Your task to perform on an android device: Show the shopping cart on newegg.com. Image 0: 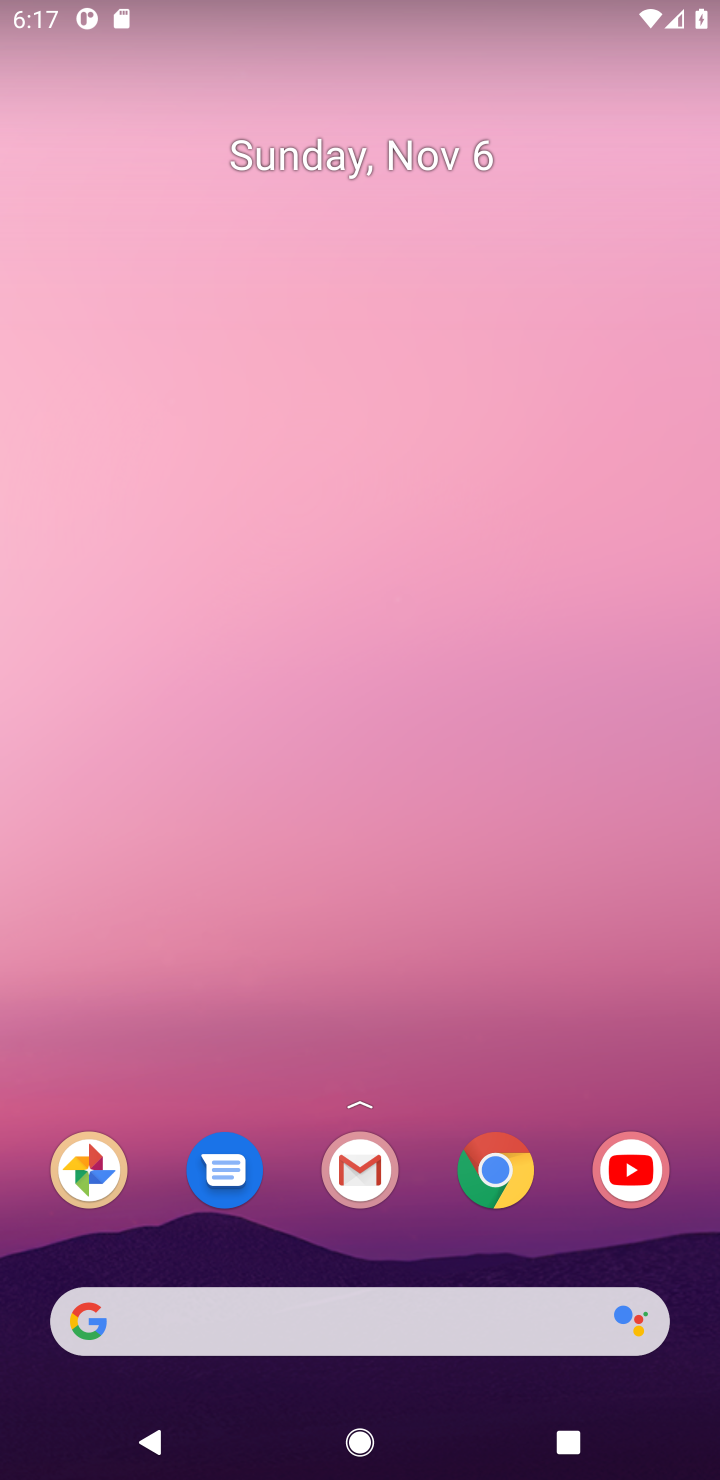
Step 0: click (488, 1193)
Your task to perform on an android device: Show the shopping cart on newegg.com. Image 1: 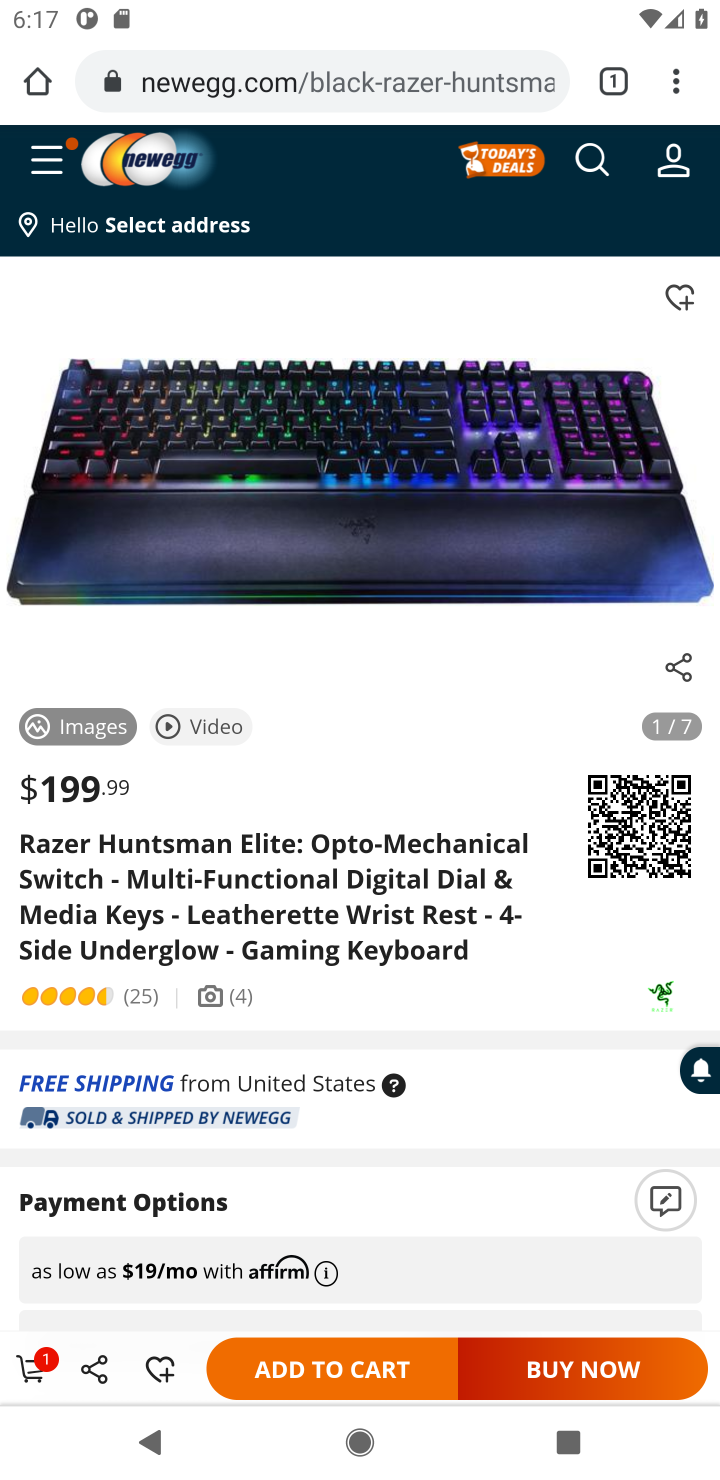
Step 1: click (35, 1367)
Your task to perform on an android device: Show the shopping cart on newegg.com. Image 2: 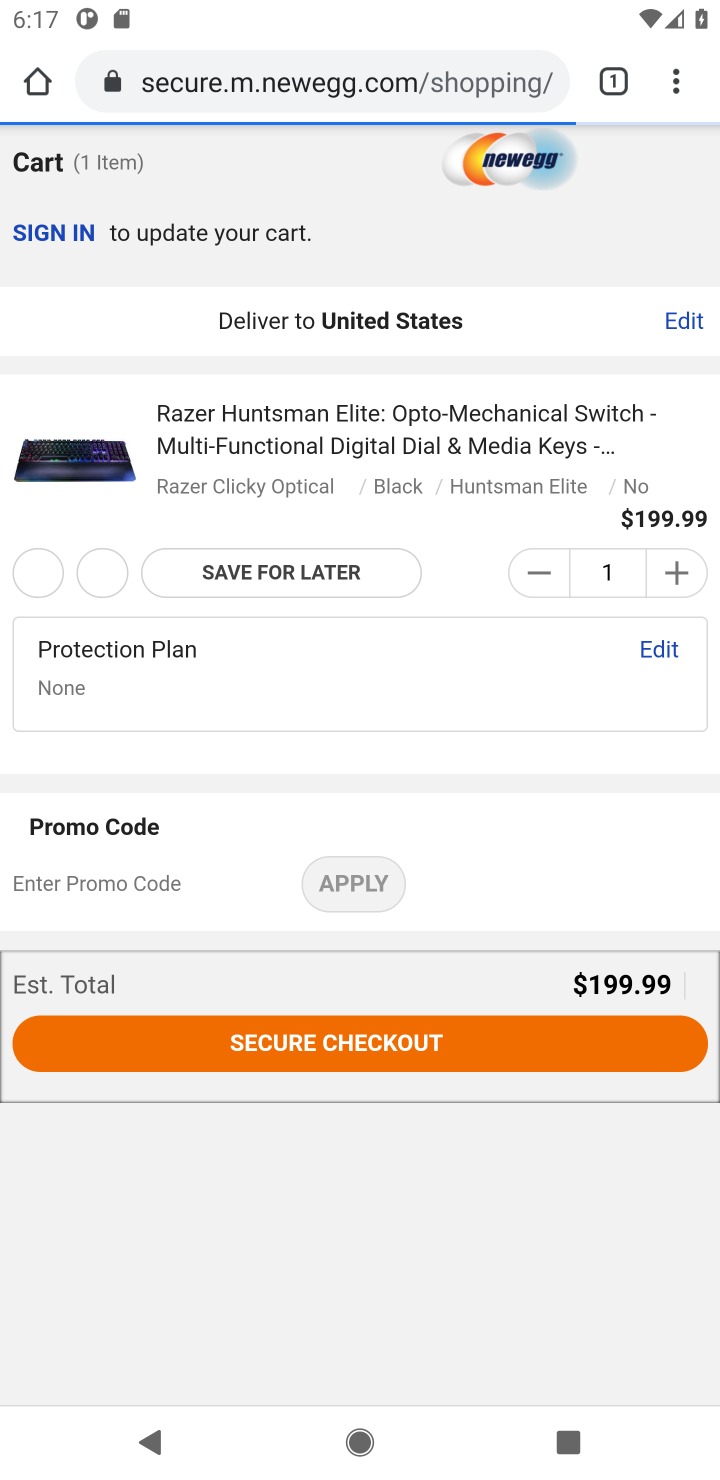
Step 2: task complete